Your task to perform on an android device: turn on the 12-hour format for clock Image 0: 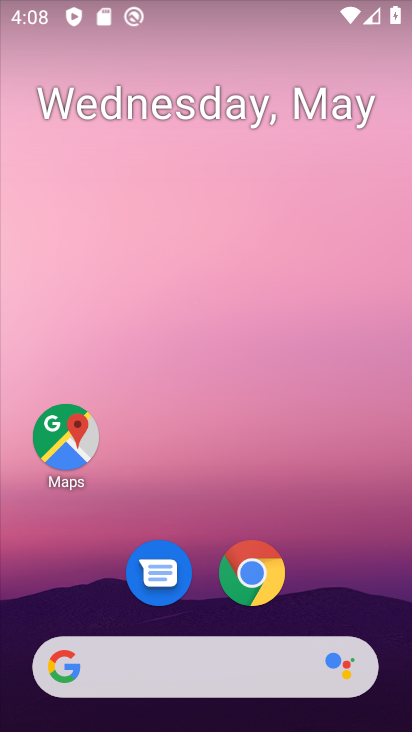
Step 0: drag from (247, 689) to (265, 73)
Your task to perform on an android device: turn on the 12-hour format for clock Image 1: 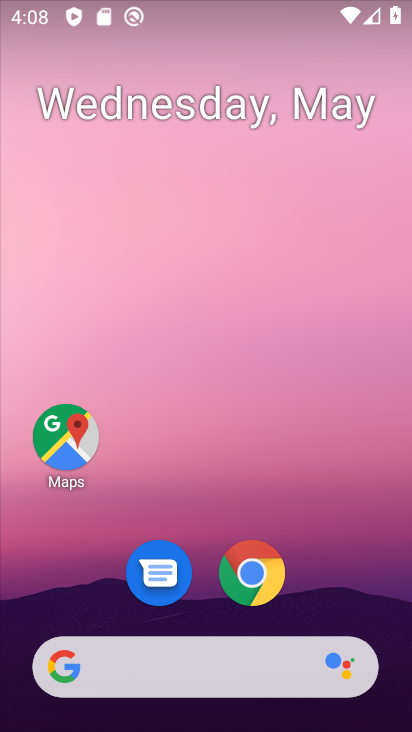
Step 1: drag from (237, 675) to (95, 216)
Your task to perform on an android device: turn on the 12-hour format for clock Image 2: 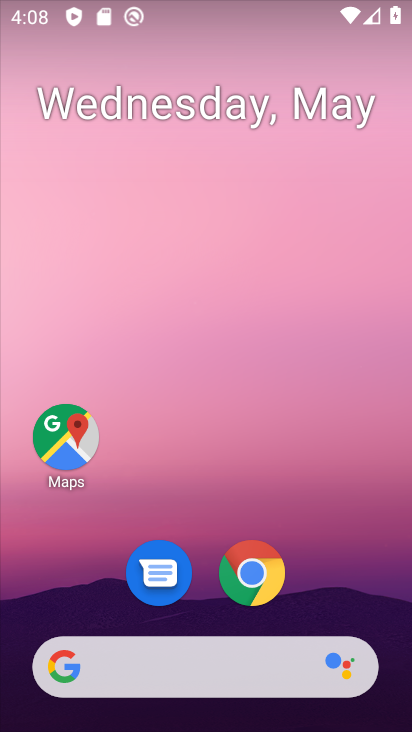
Step 2: drag from (211, 526) to (172, 343)
Your task to perform on an android device: turn on the 12-hour format for clock Image 3: 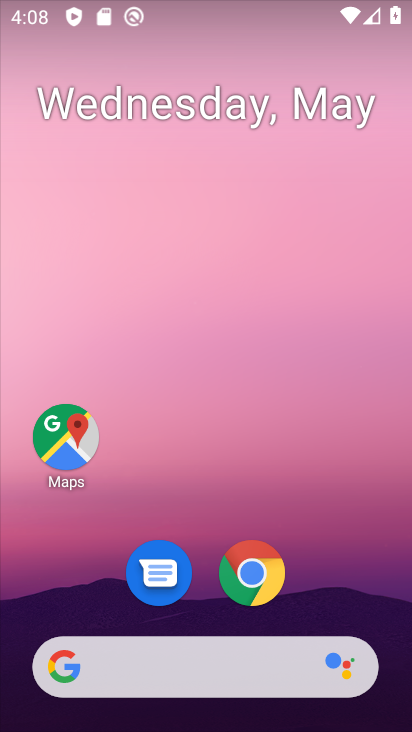
Step 3: drag from (264, 532) to (228, 134)
Your task to perform on an android device: turn on the 12-hour format for clock Image 4: 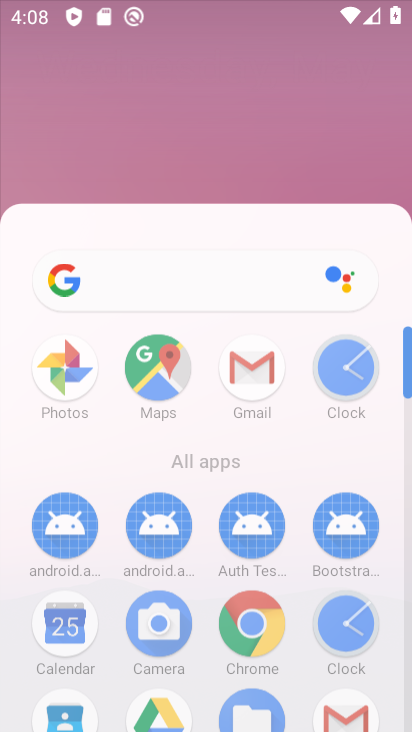
Step 4: drag from (229, 691) to (179, 136)
Your task to perform on an android device: turn on the 12-hour format for clock Image 5: 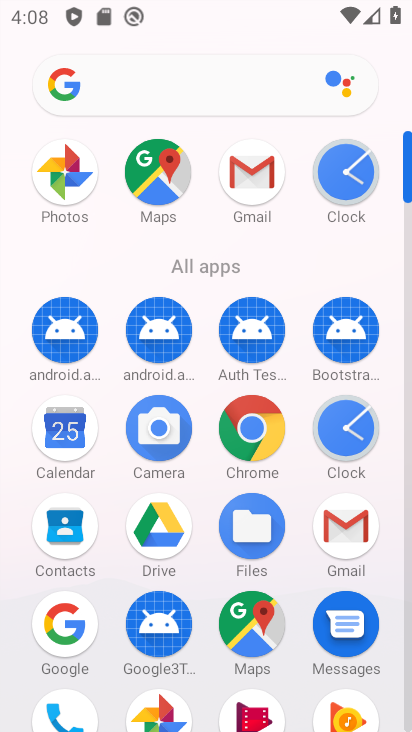
Step 5: drag from (189, 587) to (237, 265)
Your task to perform on an android device: turn on the 12-hour format for clock Image 6: 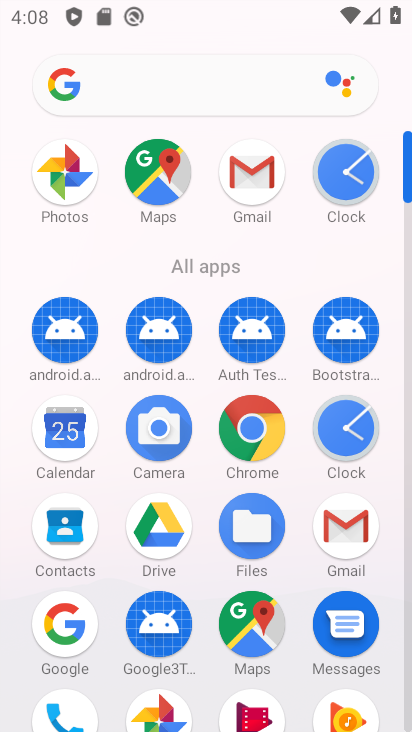
Step 6: drag from (274, 577) to (263, 158)
Your task to perform on an android device: turn on the 12-hour format for clock Image 7: 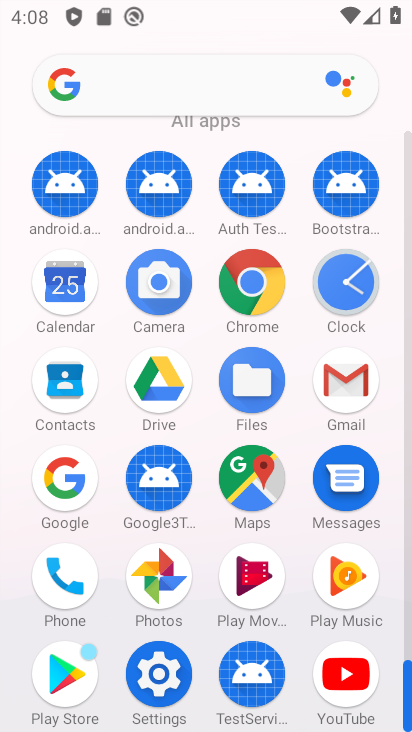
Step 7: click (339, 286)
Your task to perform on an android device: turn on the 12-hour format for clock Image 8: 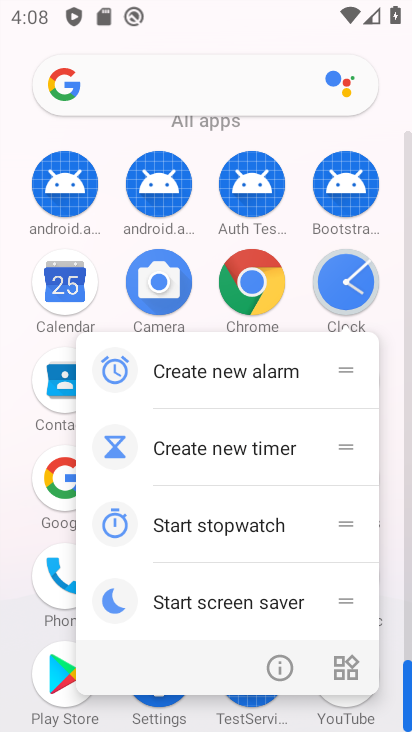
Step 8: click (344, 284)
Your task to perform on an android device: turn on the 12-hour format for clock Image 9: 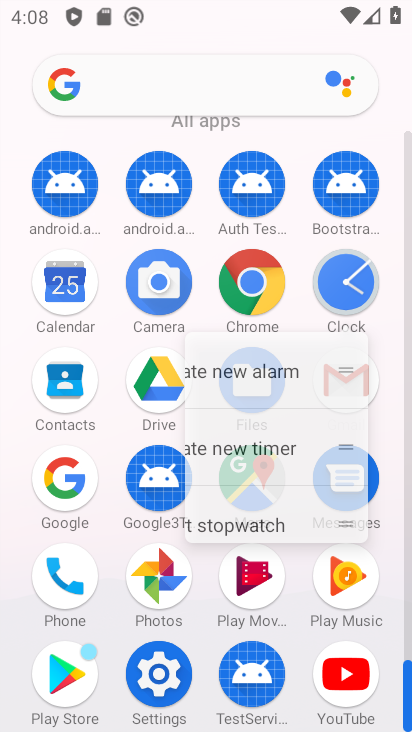
Step 9: click (344, 284)
Your task to perform on an android device: turn on the 12-hour format for clock Image 10: 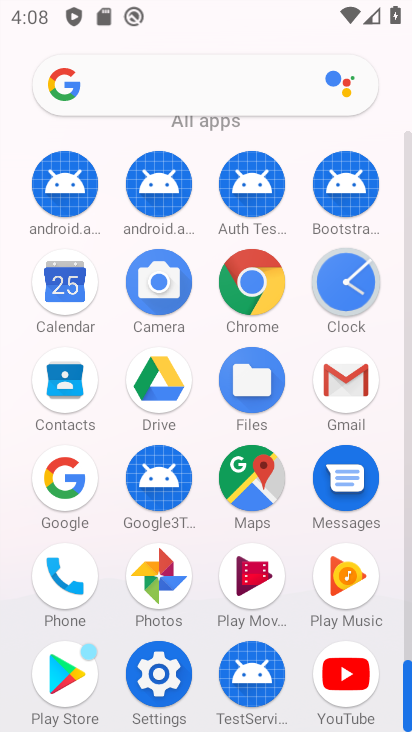
Step 10: click (345, 283)
Your task to perform on an android device: turn on the 12-hour format for clock Image 11: 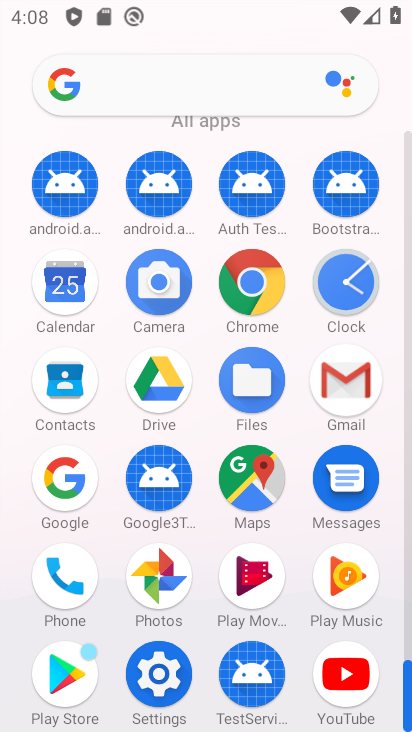
Step 11: click (339, 277)
Your task to perform on an android device: turn on the 12-hour format for clock Image 12: 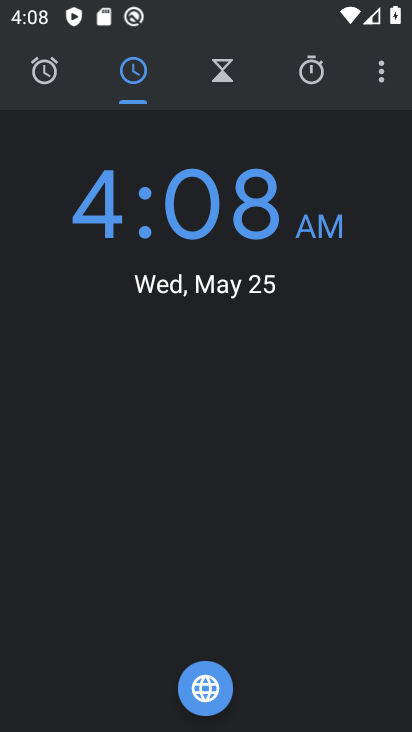
Step 12: click (382, 77)
Your task to perform on an android device: turn on the 12-hour format for clock Image 13: 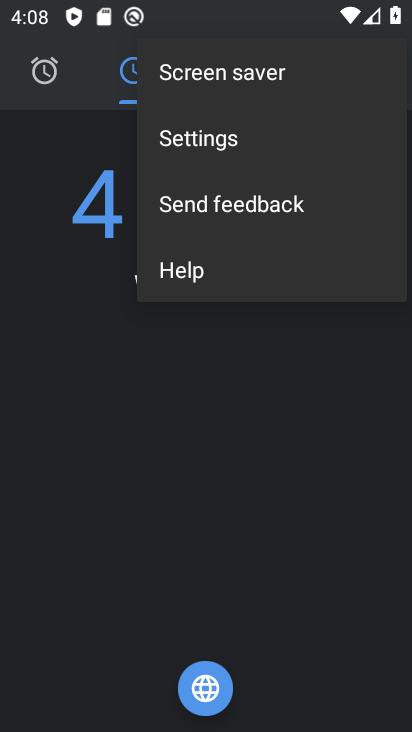
Step 13: click (202, 135)
Your task to perform on an android device: turn on the 12-hour format for clock Image 14: 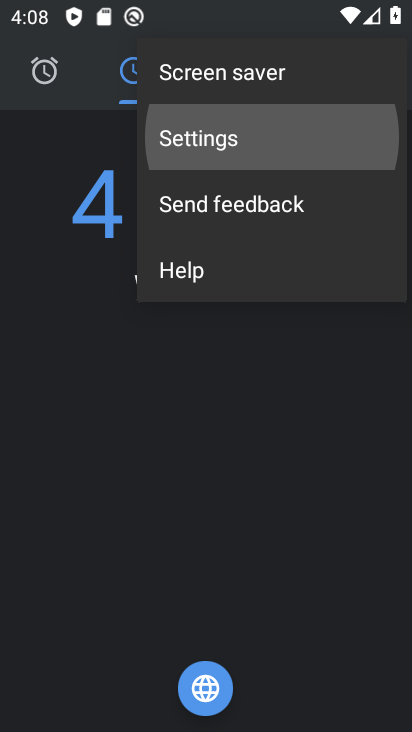
Step 14: click (201, 136)
Your task to perform on an android device: turn on the 12-hour format for clock Image 15: 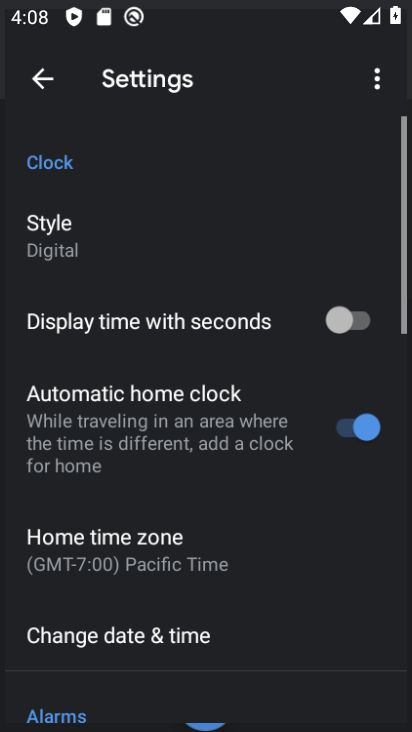
Step 15: click (203, 136)
Your task to perform on an android device: turn on the 12-hour format for clock Image 16: 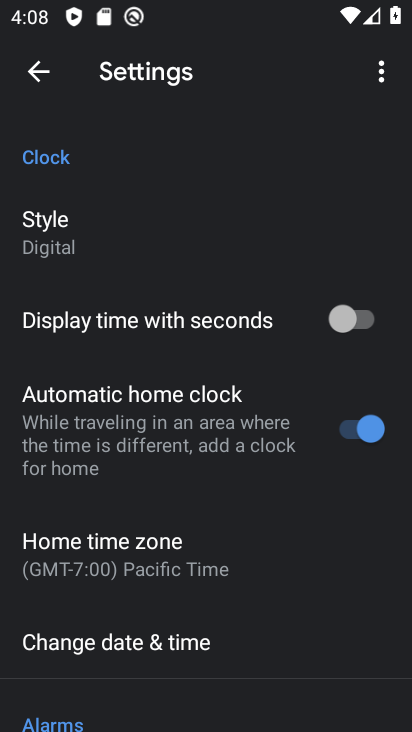
Step 16: drag from (212, 524) to (179, 77)
Your task to perform on an android device: turn on the 12-hour format for clock Image 17: 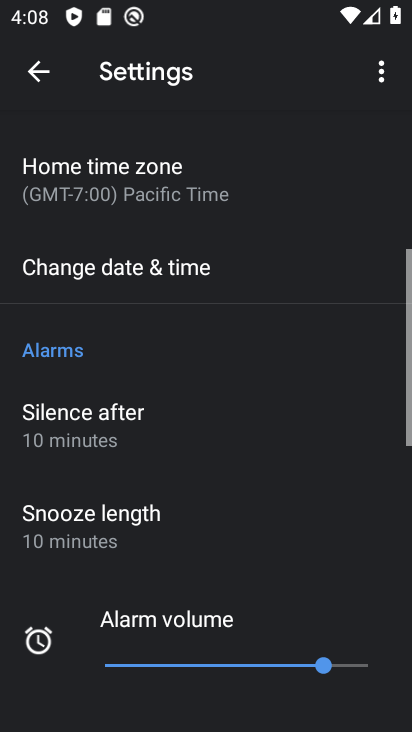
Step 17: drag from (251, 535) to (218, 244)
Your task to perform on an android device: turn on the 12-hour format for clock Image 18: 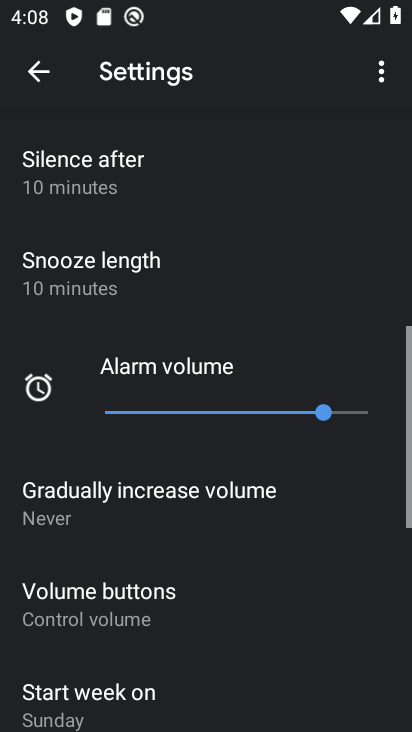
Step 18: drag from (245, 505) to (242, 163)
Your task to perform on an android device: turn on the 12-hour format for clock Image 19: 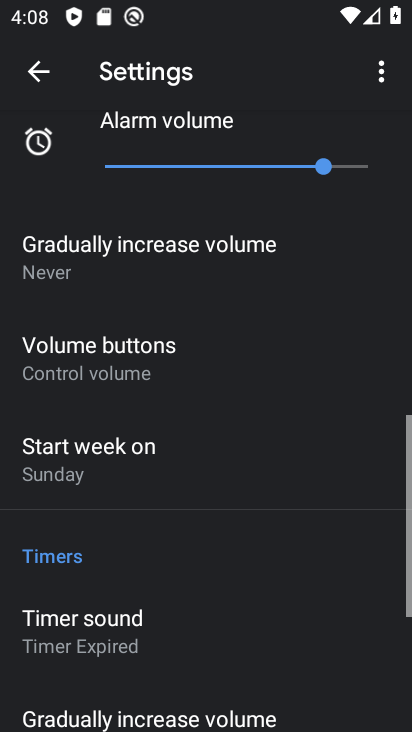
Step 19: drag from (205, 551) to (161, 313)
Your task to perform on an android device: turn on the 12-hour format for clock Image 20: 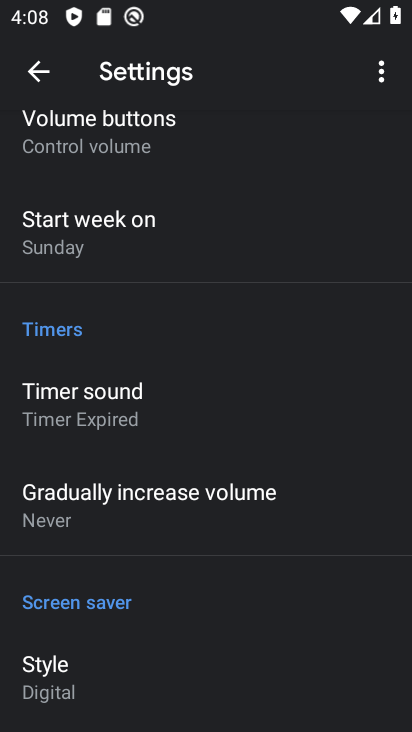
Step 20: drag from (120, 632) to (251, 203)
Your task to perform on an android device: turn on the 12-hour format for clock Image 21: 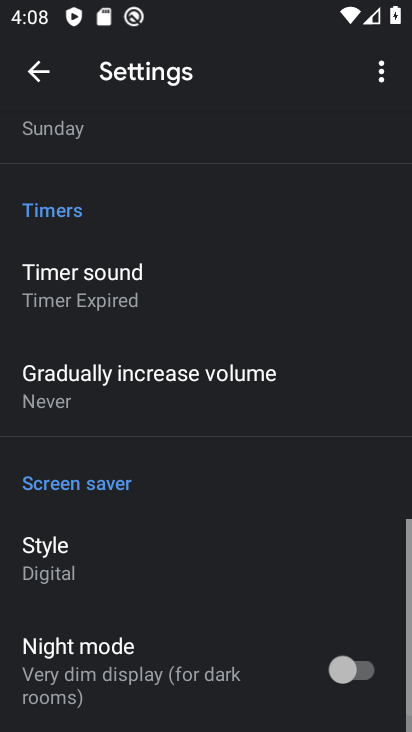
Step 21: drag from (224, 592) to (273, 230)
Your task to perform on an android device: turn on the 12-hour format for clock Image 22: 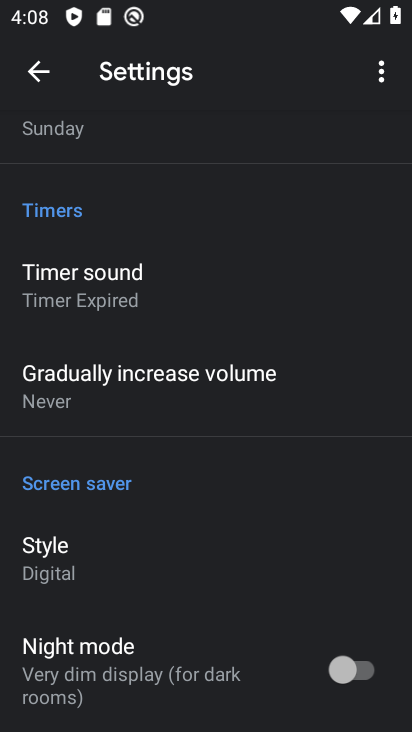
Step 22: drag from (163, 589) to (194, 173)
Your task to perform on an android device: turn on the 12-hour format for clock Image 23: 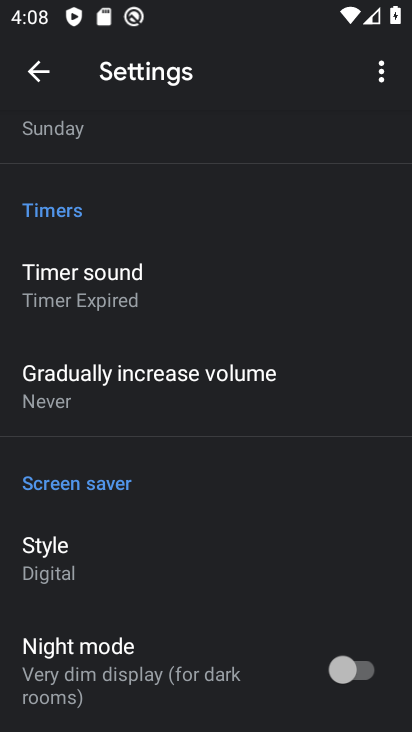
Step 23: drag from (225, 616) to (244, 221)
Your task to perform on an android device: turn on the 12-hour format for clock Image 24: 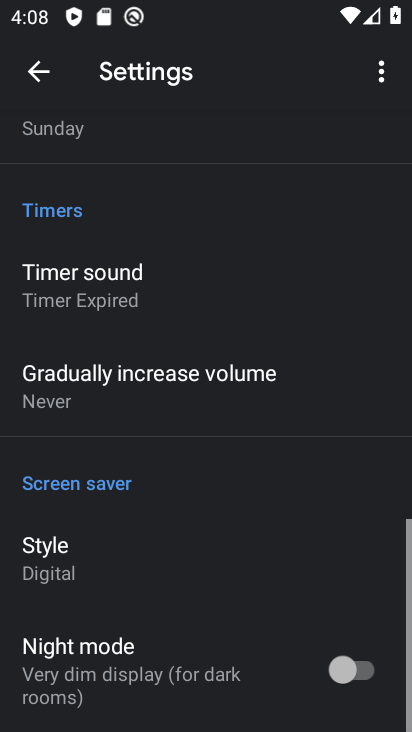
Step 24: drag from (242, 664) to (231, 309)
Your task to perform on an android device: turn on the 12-hour format for clock Image 25: 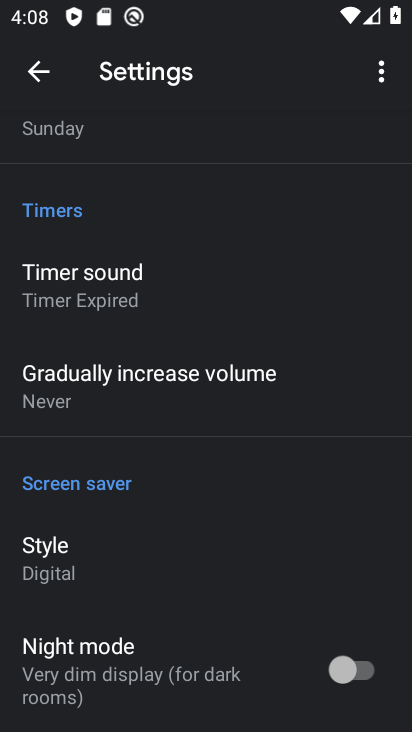
Step 25: drag from (139, 583) to (145, 217)
Your task to perform on an android device: turn on the 12-hour format for clock Image 26: 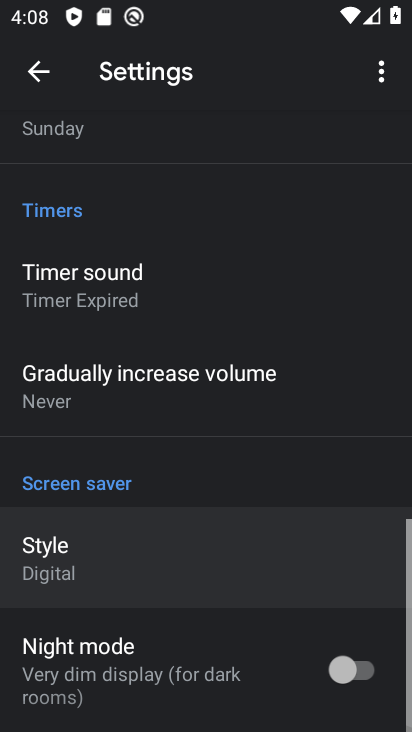
Step 26: drag from (242, 496) to (180, 113)
Your task to perform on an android device: turn on the 12-hour format for clock Image 27: 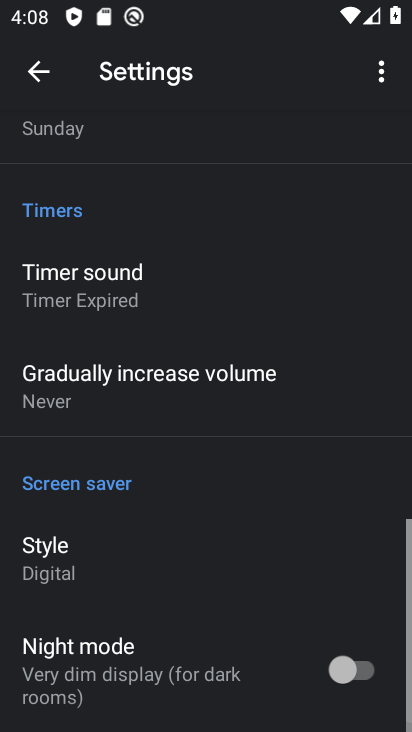
Step 27: drag from (185, 621) to (184, 195)
Your task to perform on an android device: turn on the 12-hour format for clock Image 28: 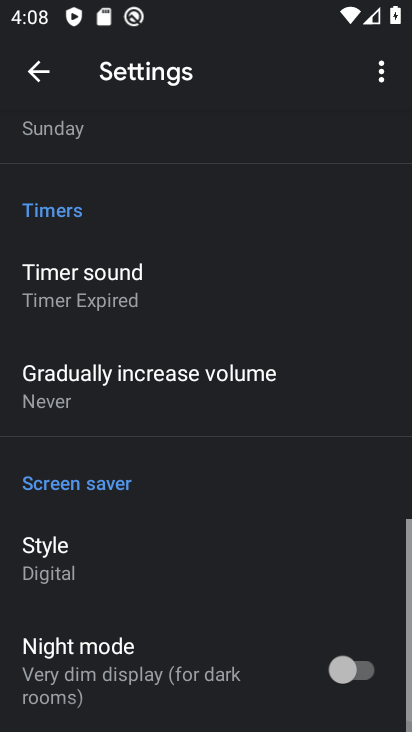
Step 28: drag from (178, 215) to (178, 644)
Your task to perform on an android device: turn on the 12-hour format for clock Image 29: 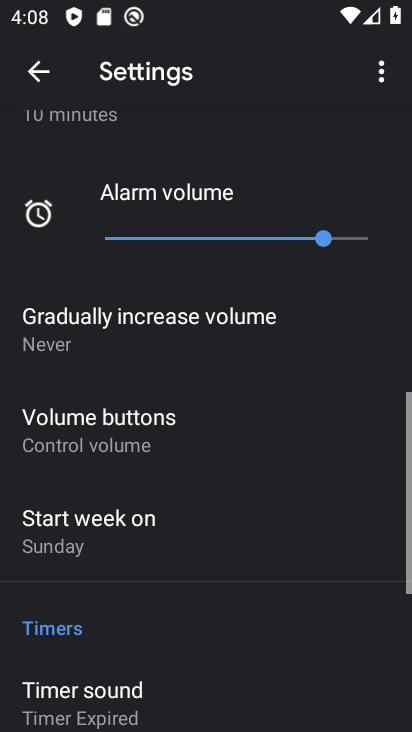
Step 29: drag from (128, 295) to (170, 582)
Your task to perform on an android device: turn on the 12-hour format for clock Image 30: 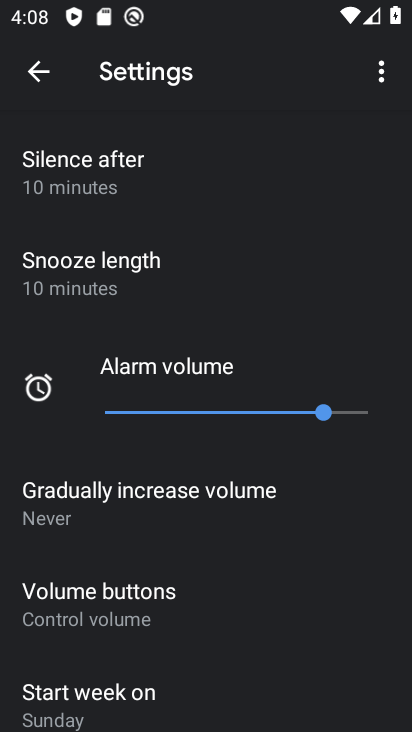
Step 30: drag from (144, 234) to (202, 632)
Your task to perform on an android device: turn on the 12-hour format for clock Image 31: 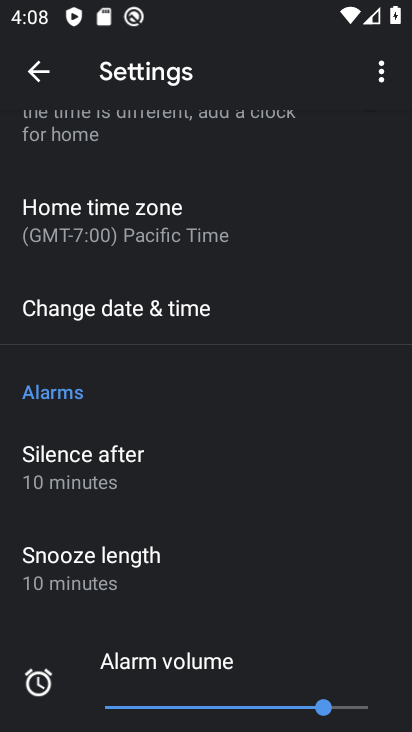
Step 31: click (106, 304)
Your task to perform on an android device: turn on the 12-hour format for clock Image 32: 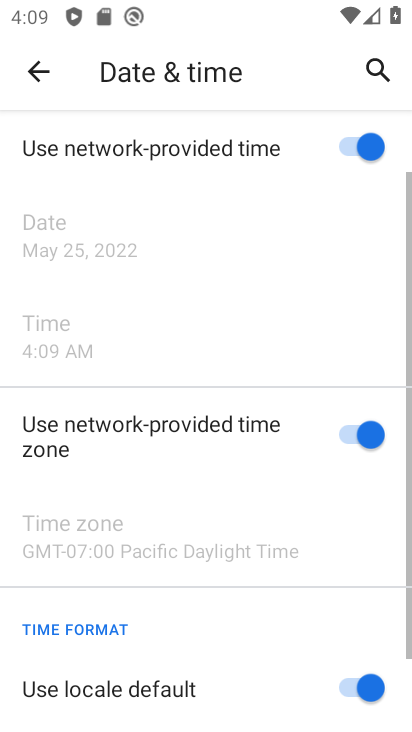
Step 32: drag from (229, 569) to (259, 195)
Your task to perform on an android device: turn on the 12-hour format for clock Image 33: 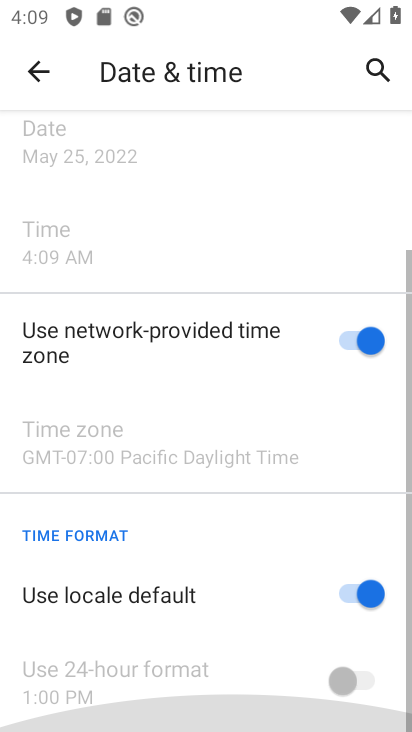
Step 33: drag from (262, 543) to (270, 206)
Your task to perform on an android device: turn on the 12-hour format for clock Image 34: 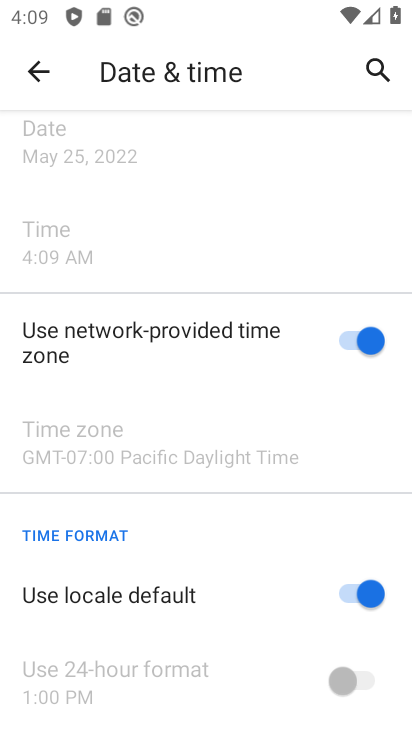
Step 34: click (333, 685)
Your task to perform on an android device: turn on the 12-hour format for clock Image 35: 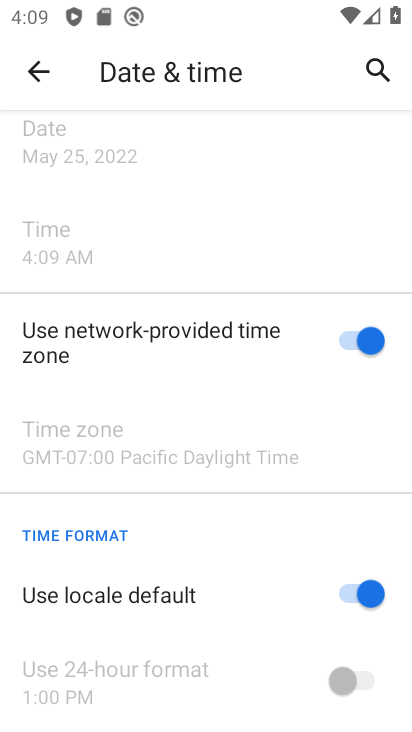
Step 35: task complete